Your task to perform on an android device: turn on the 12-hour format for clock Image 0: 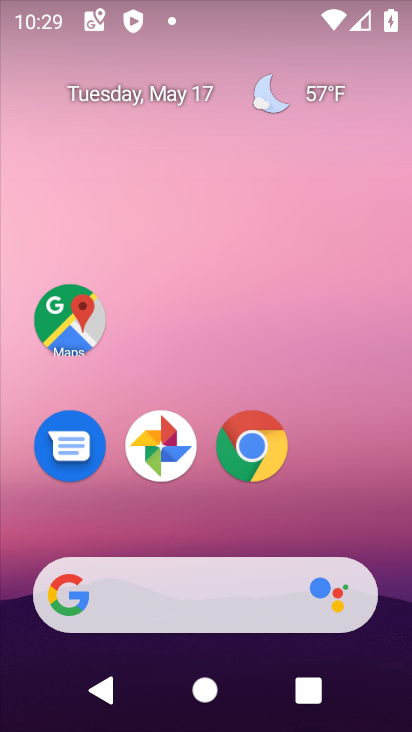
Step 0: drag from (243, 598) to (271, 215)
Your task to perform on an android device: turn on the 12-hour format for clock Image 1: 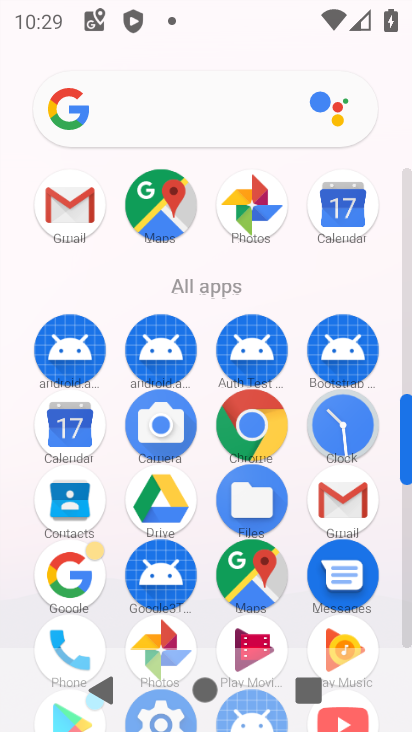
Step 1: drag from (180, 585) to (144, 172)
Your task to perform on an android device: turn on the 12-hour format for clock Image 2: 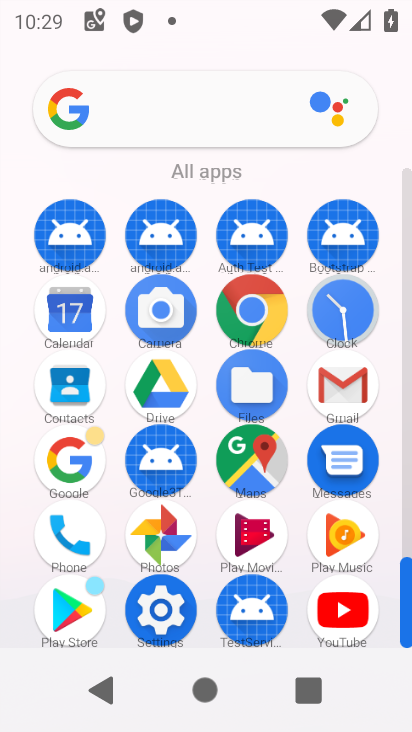
Step 2: click (164, 622)
Your task to perform on an android device: turn on the 12-hour format for clock Image 3: 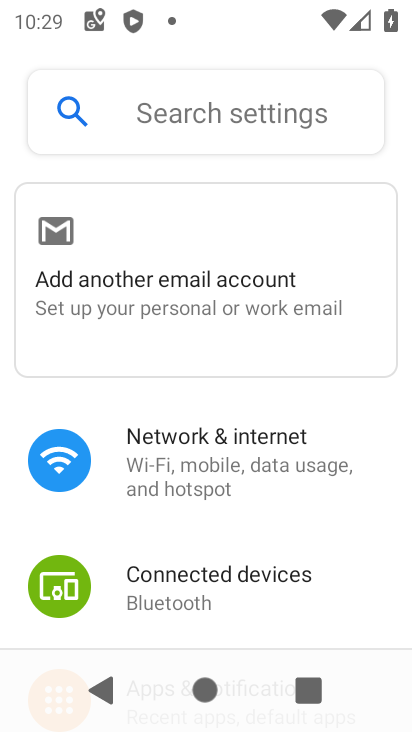
Step 3: drag from (265, 574) to (247, 71)
Your task to perform on an android device: turn on the 12-hour format for clock Image 4: 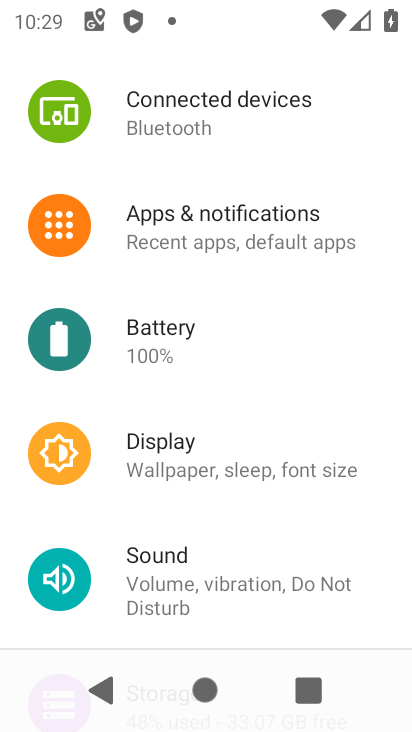
Step 4: drag from (249, 498) to (147, 1)
Your task to perform on an android device: turn on the 12-hour format for clock Image 5: 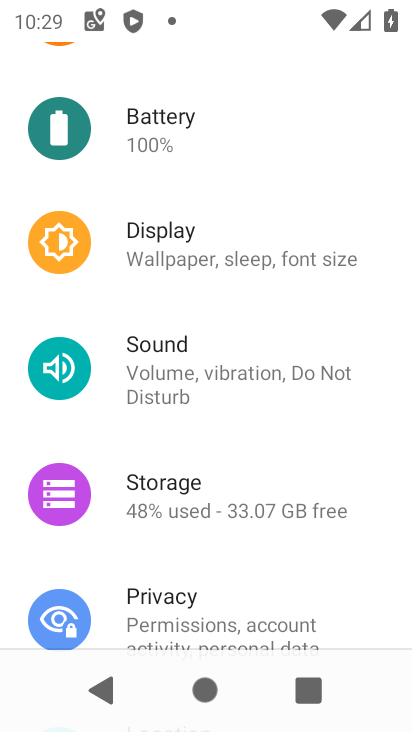
Step 5: drag from (257, 458) to (162, 0)
Your task to perform on an android device: turn on the 12-hour format for clock Image 6: 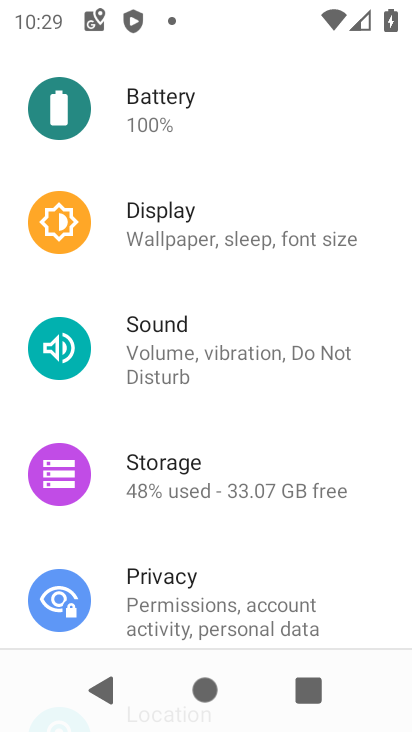
Step 6: drag from (339, 520) to (262, 3)
Your task to perform on an android device: turn on the 12-hour format for clock Image 7: 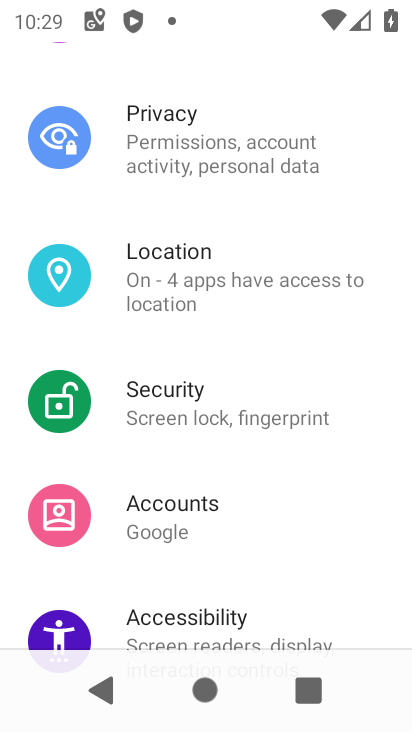
Step 7: drag from (211, 518) to (195, 138)
Your task to perform on an android device: turn on the 12-hour format for clock Image 8: 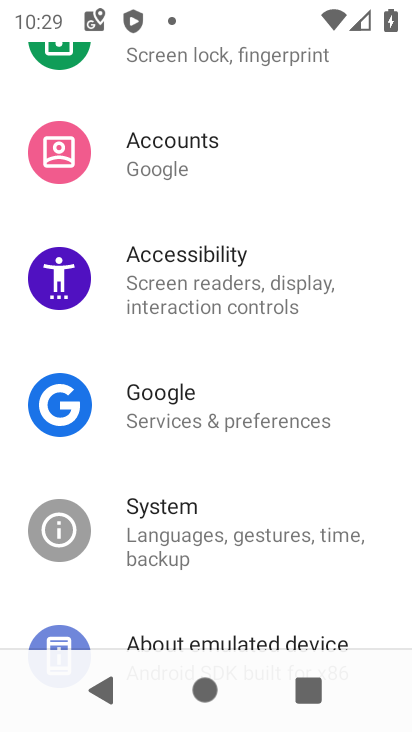
Step 8: click (166, 522)
Your task to perform on an android device: turn on the 12-hour format for clock Image 9: 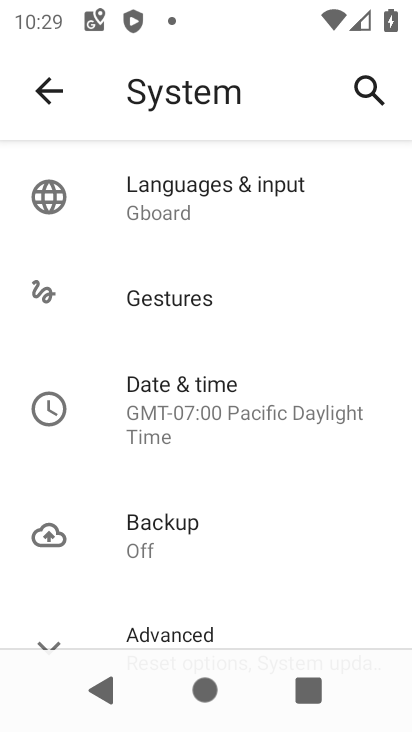
Step 9: click (223, 395)
Your task to perform on an android device: turn on the 12-hour format for clock Image 10: 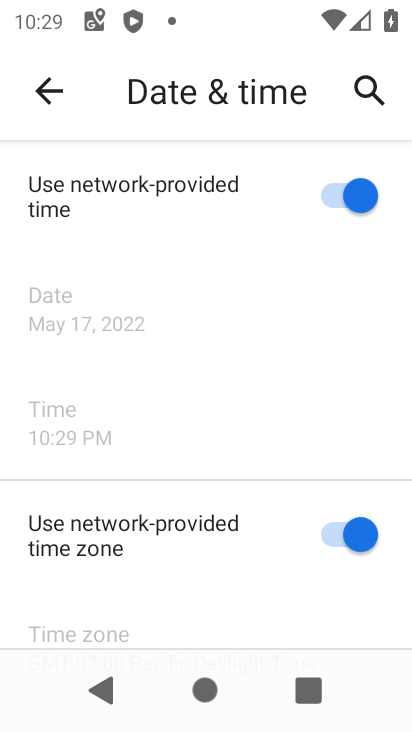
Step 10: task complete